Your task to perform on an android device: Open Wikipedia Image 0: 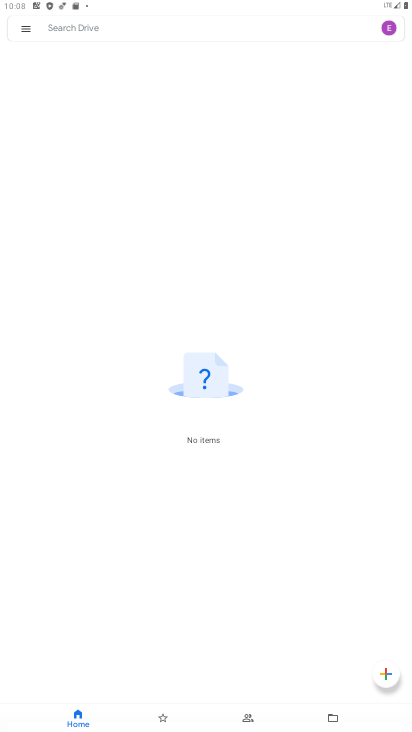
Step 0: press home button
Your task to perform on an android device: Open Wikipedia Image 1: 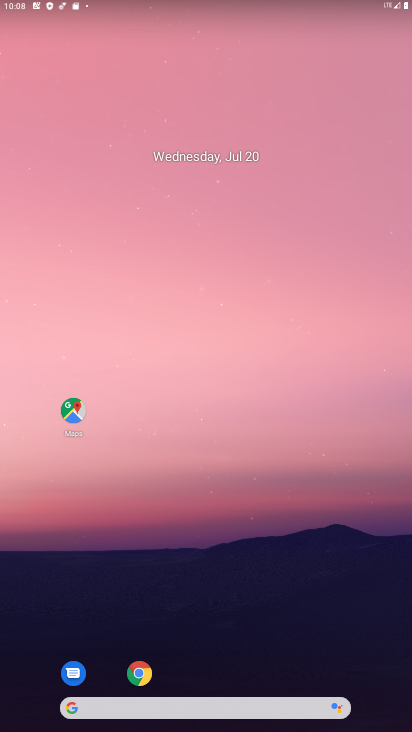
Step 1: click (138, 675)
Your task to perform on an android device: Open Wikipedia Image 2: 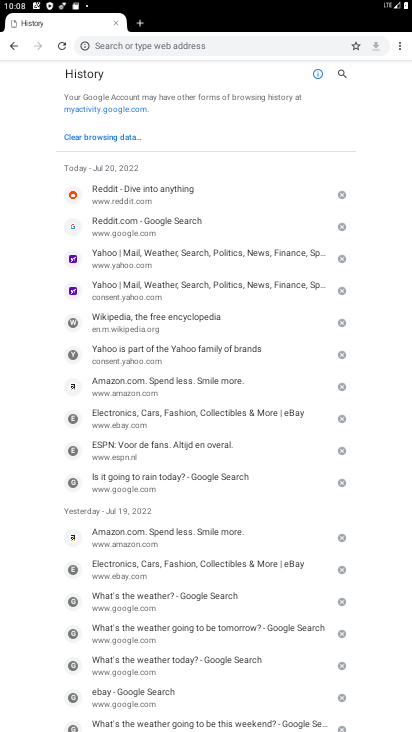
Step 2: click (246, 50)
Your task to perform on an android device: Open Wikipedia Image 3: 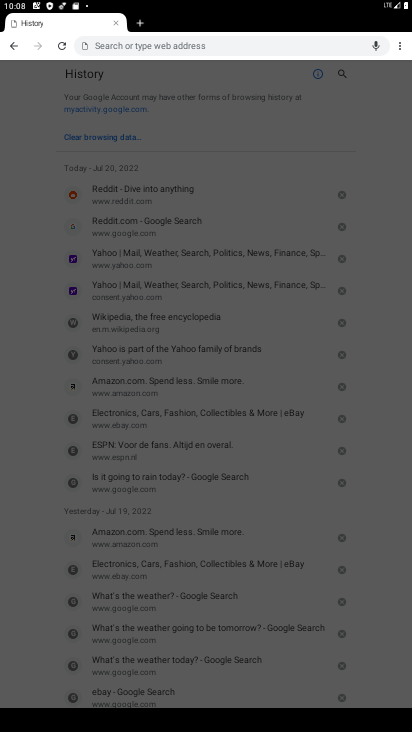
Step 3: type "Wikipedia"
Your task to perform on an android device: Open Wikipedia Image 4: 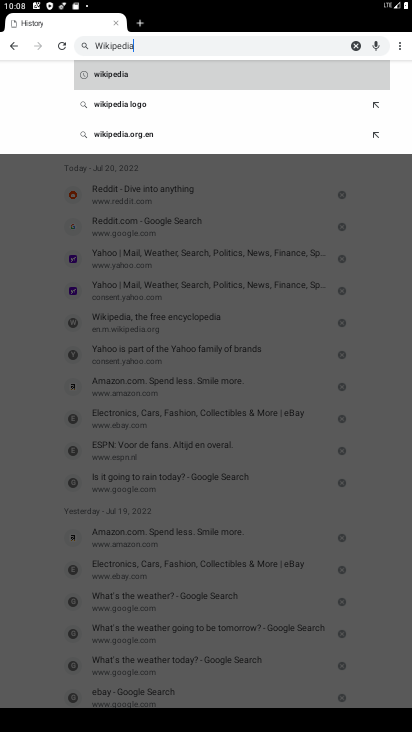
Step 4: click (107, 69)
Your task to perform on an android device: Open Wikipedia Image 5: 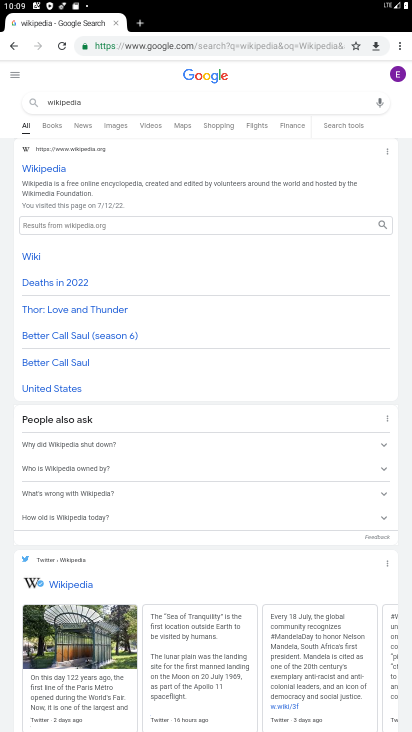
Step 5: click (60, 172)
Your task to perform on an android device: Open Wikipedia Image 6: 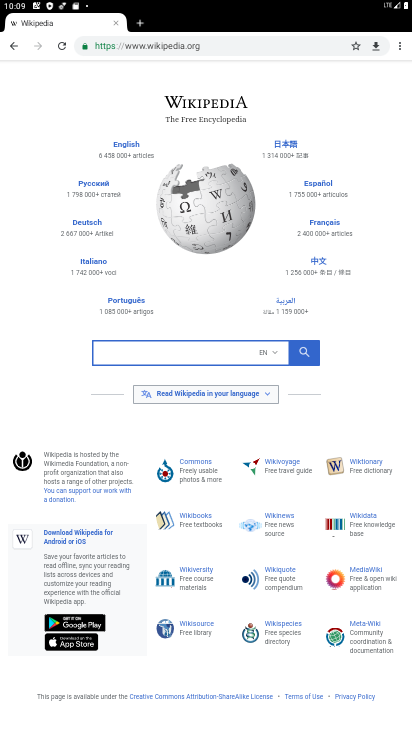
Step 6: task complete